Your task to perform on an android device: open device folders in google photos Image 0: 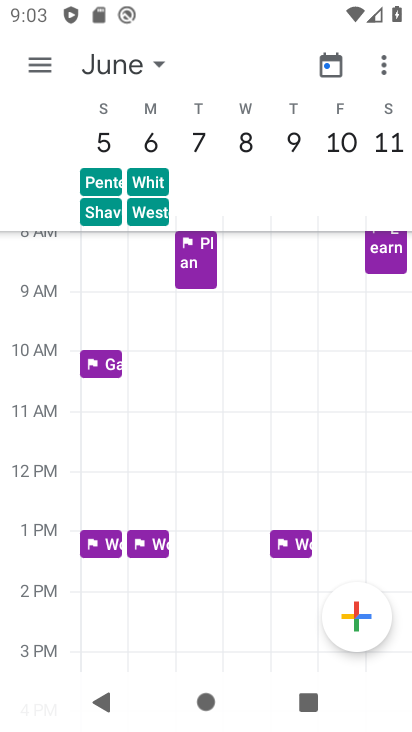
Step 0: press home button
Your task to perform on an android device: open device folders in google photos Image 1: 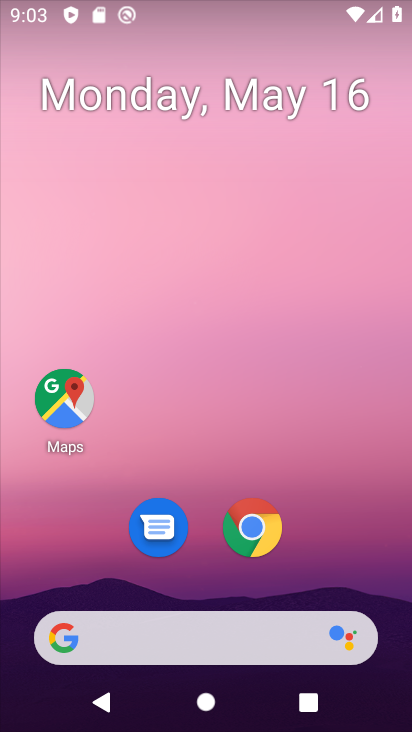
Step 1: drag from (324, 584) to (295, 18)
Your task to perform on an android device: open device folders in google photos Image 2: 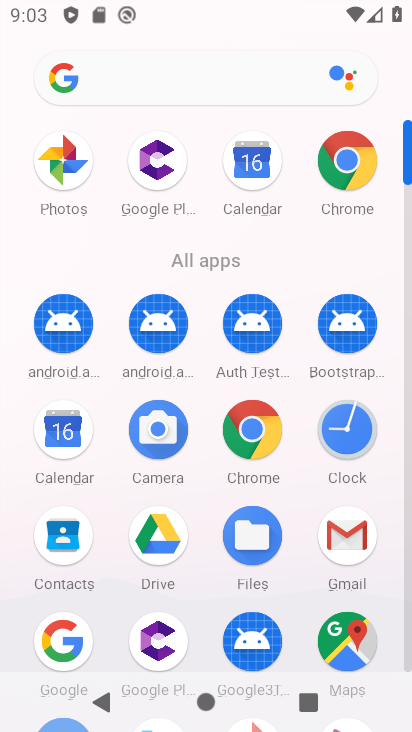
Step 2: click (59, 165)
Your task to perform on an android device: open device folders in google photos Image 3: 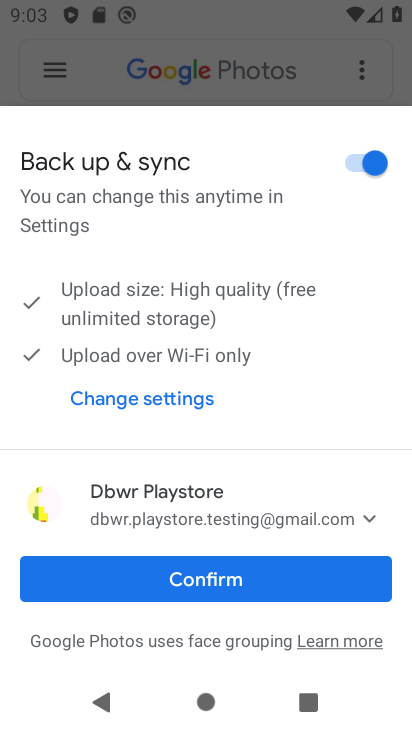
Step 3: click (191, 569)
Your task to perform on an android device: open device folders in google photos Image 4: 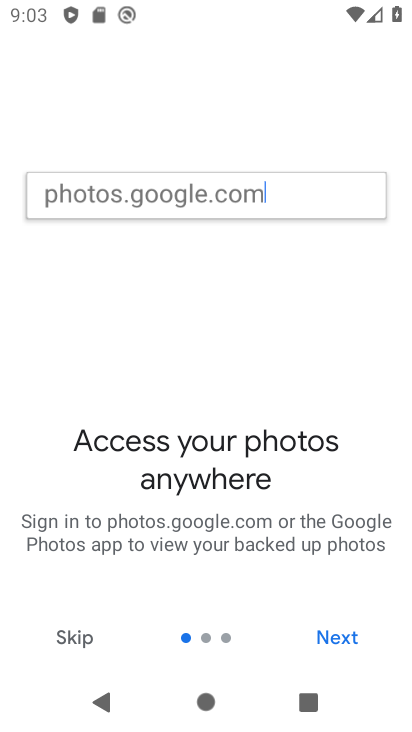
Step 4: click (69, 636)
Your task to perform on an android device: open device folders in google photos Image 5: 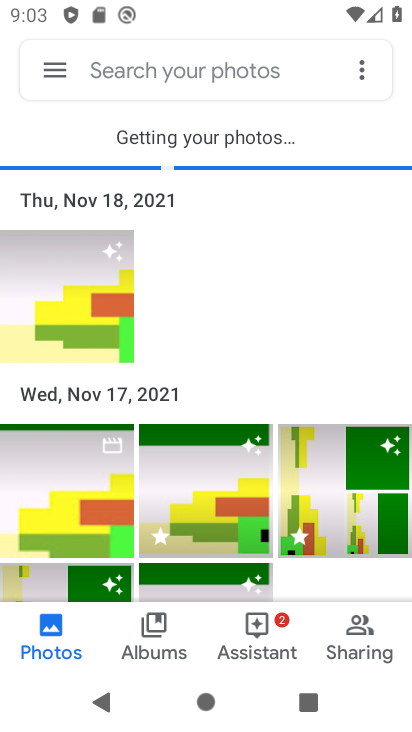
Step 5: click (54, 70)
Your task to perform on an android device: open device folders in google photos Image 6: 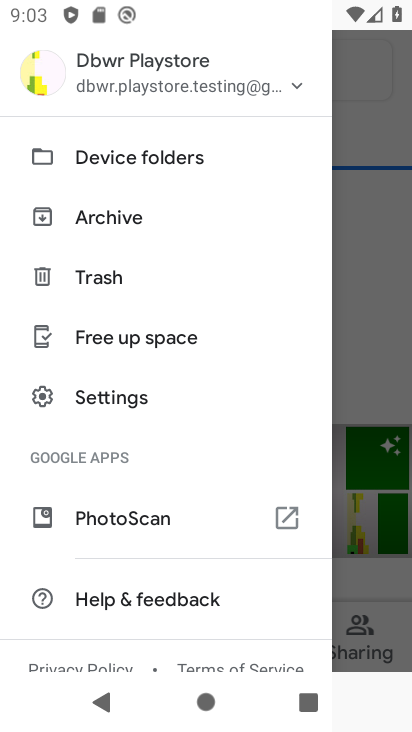
Step 6: click (87, 160)
Your task to perform on an android device: open device folders in google photos Image 7: 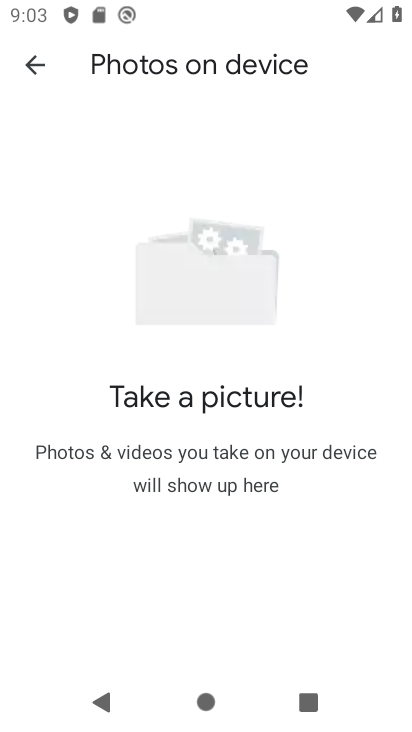
Step 7: task complete